Your task to perform on an android device: check data usage Image 0: 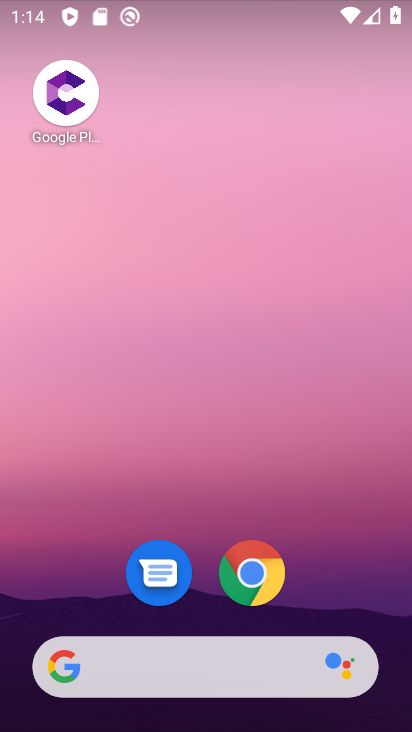
Step 0: drag from (192, 387) to (397, 449)
Your task to perform on an android device: check data usage Image 1: 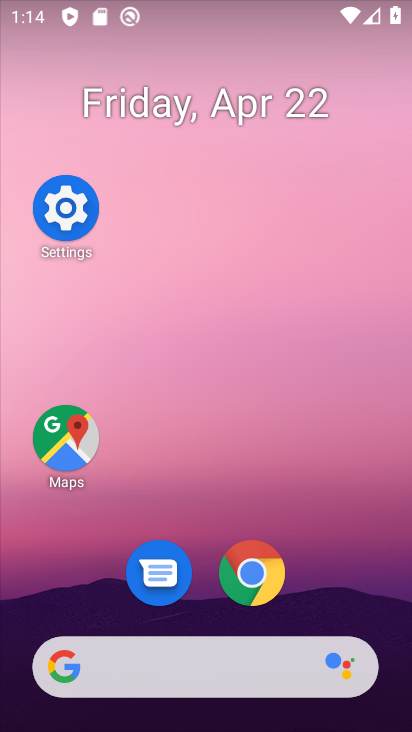
Step 1: click (50, 205)
Your task to perform on an android device: check data usage Image 2: 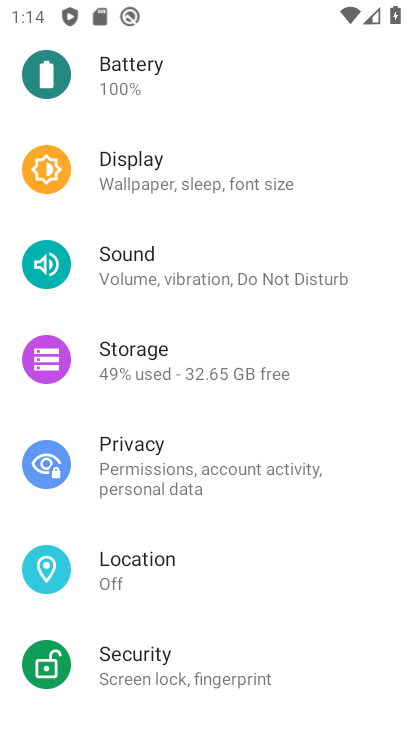
Step 2: drag from (276, 119) to (350, 704)
Your task to perform on an android device: check data usage Image 3: 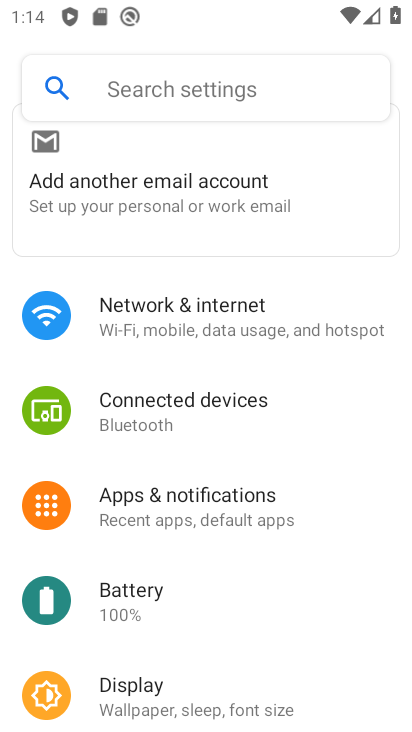
Step 3: click (265, 312)
Your task to perform on an android device: check data usage Image 4: 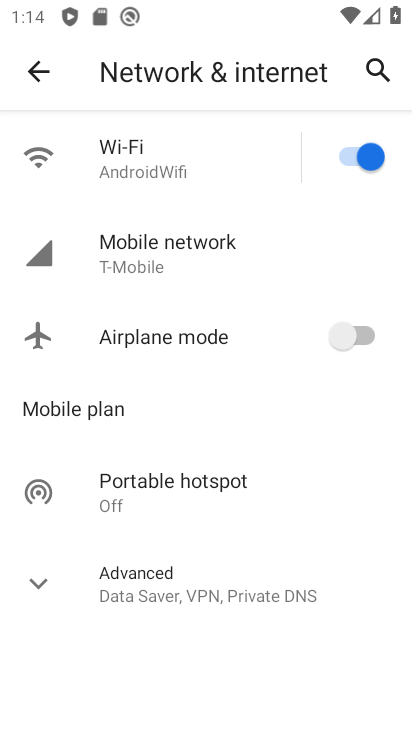
Step 4: click (207, 244)
Your task to perform on an android device: check data usage Image 5: 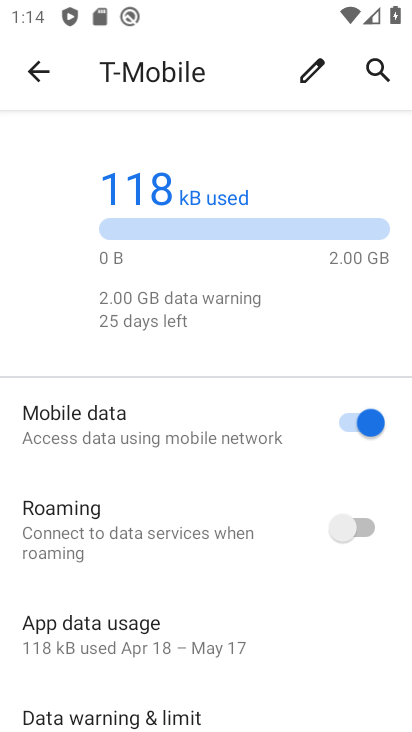
Step 5: click (160, 616)
Your task to perform on an android device: check data usage Image 6: 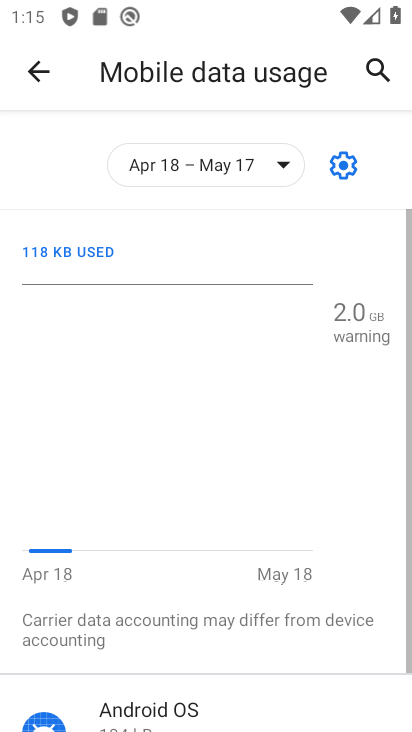
Step 6: task complete